Your task to perform on an android device: Open privacy settings Image 0: 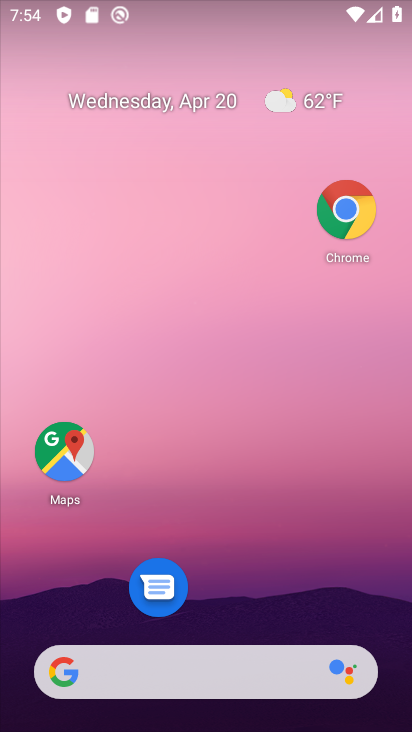
Step 0: drag from (214, 628) to (196, 152)
Your task to perform on an android device: Open privacy settings Image 1: 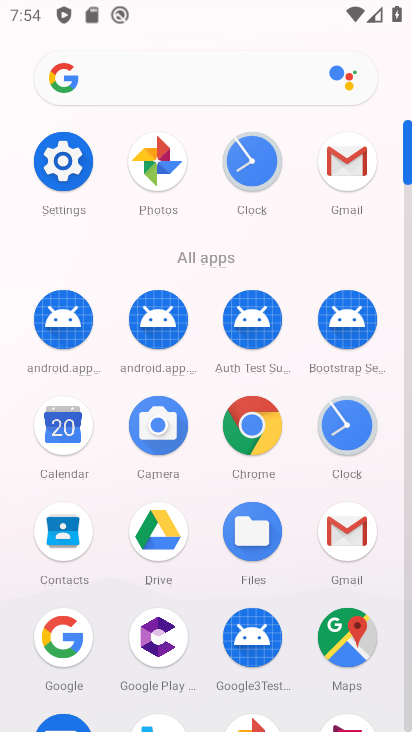
Step 1: click (71, 179)
Your task to perform on an android device: Open privacy settings Image 2: 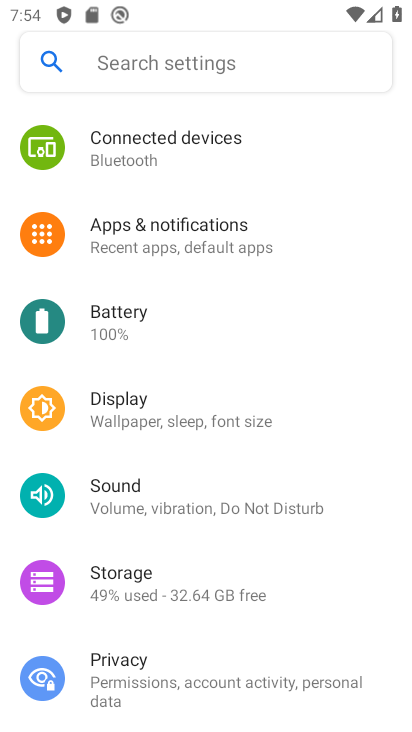
Step 2: click (173, 675)
Your task to perform on an android device: Open privacy settings Image 3: 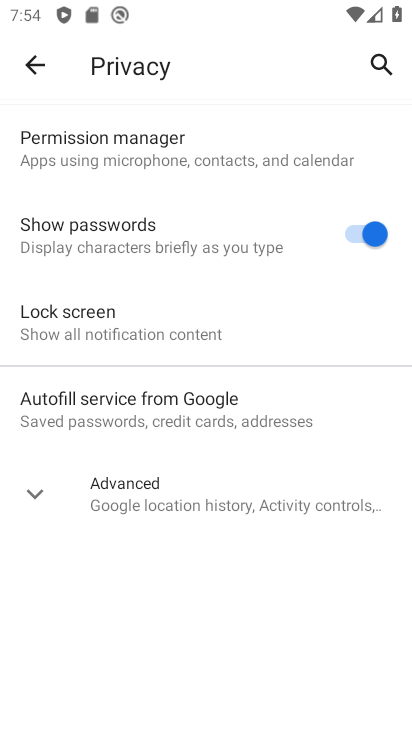
Step 3: task complete